Your task to perform on an android device: allow cookies in the chrome app Image 0: 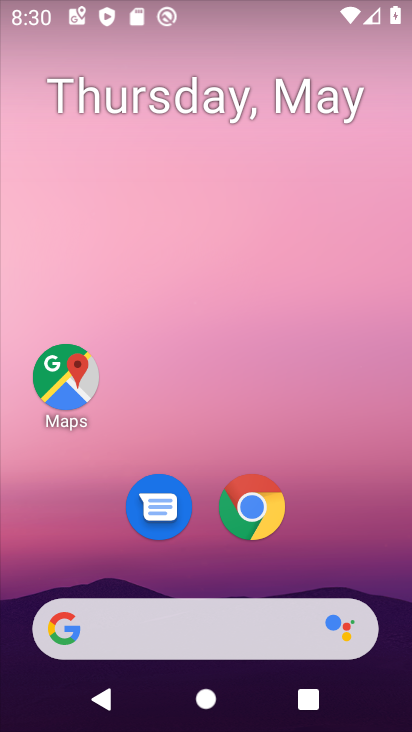
Step 0: drag from (273, 661) to (165, 172)
Your task to perform on an android device: allow cookies in the chrome app Image 1: 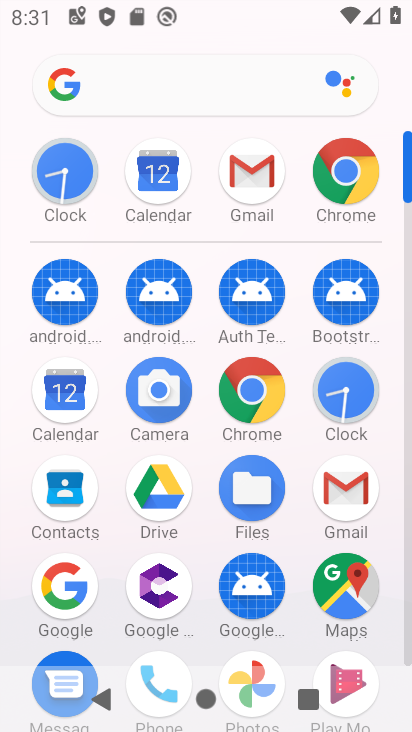
Step 1: click (335, 174)
Your task to perform on an android device: allow cookies in the chrome app Image 2: 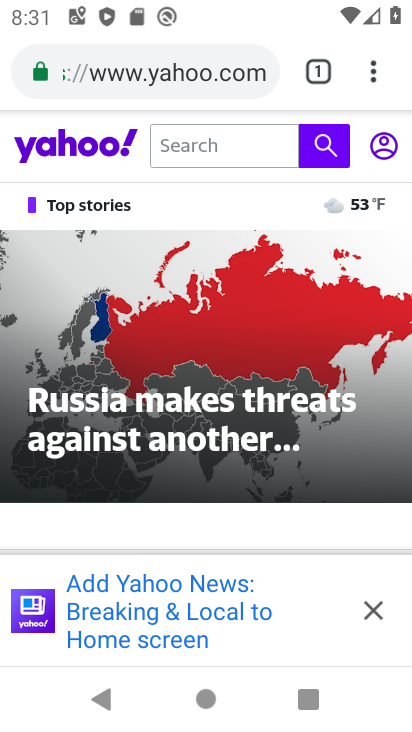
Step 2: click (366, 80)
Your task to perform on an android device: allow cookies in the chrome app Image 3: 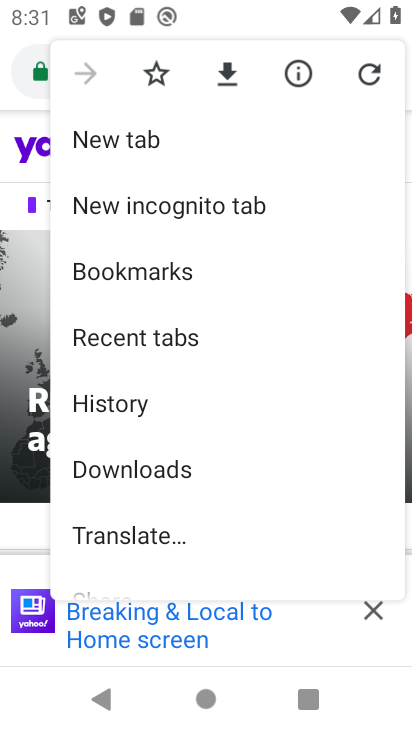
Step 3: drag from (144, 440) to (243, 219)
Your task to perform on an android device: allow cookies in the chrome app Image 4: 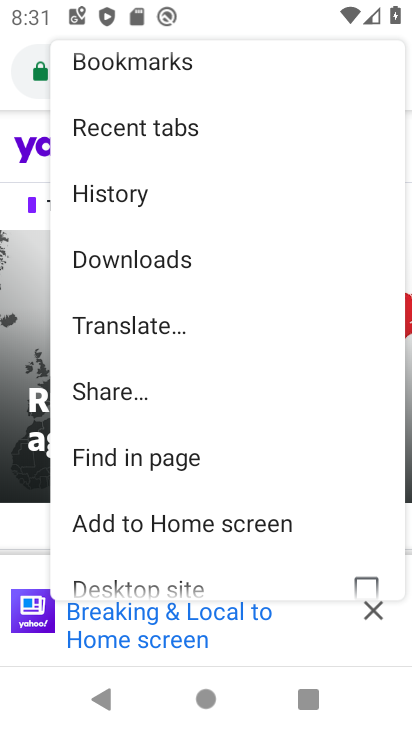
Step 4: drag from (145, 470) to (203, 179)
Your task to perform on an android device: allow cookies in the chrome app Image 5: 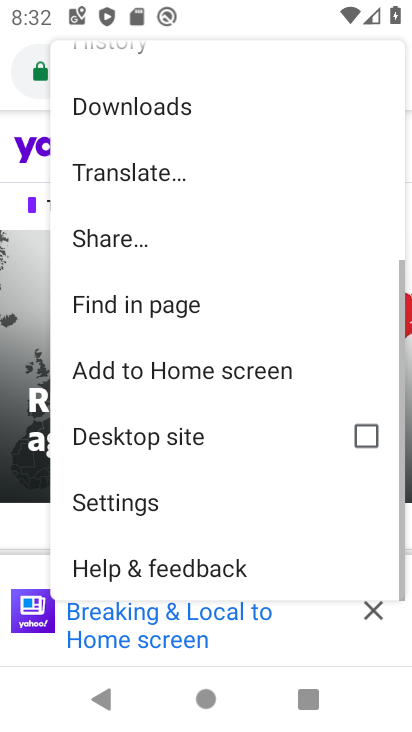
Step 5: click (119, 483)
Your task to perform on an android device: allow cookies in the chrome app Image 6: 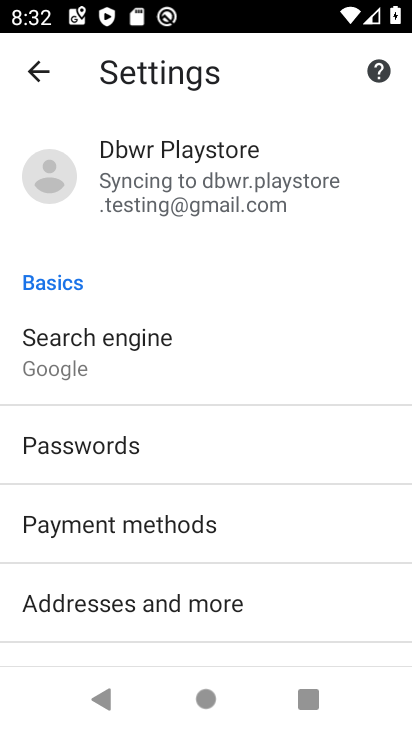
Step 6: drag from (168, 576) to (225, 226)
Your task to perform on an android device: allow cookies in the chrome app Image 7: 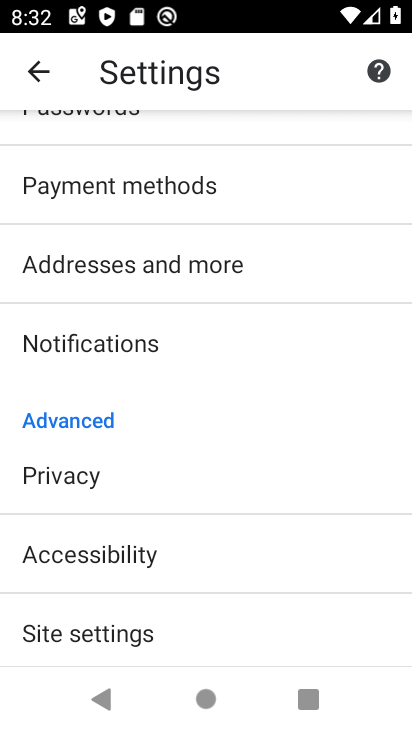
Step 7: drag from (128, 615) to (172, 514)
Your task to perform on an android device: allow cookies in the chrome app Image 8: 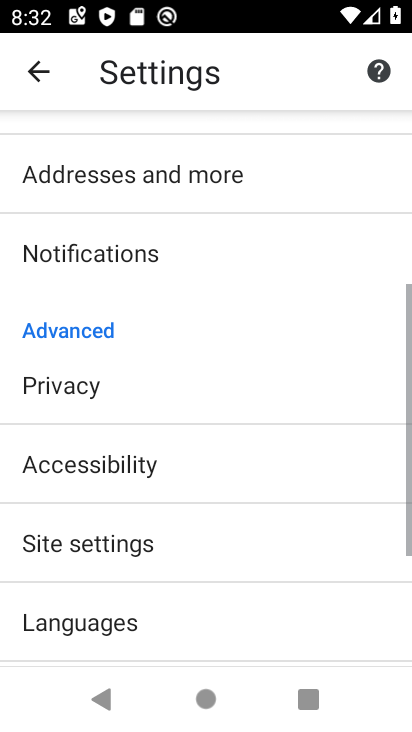
Step 8: click (138, 549)
Your task to perform on an android device: allow cookies in the chrome app Image 9: 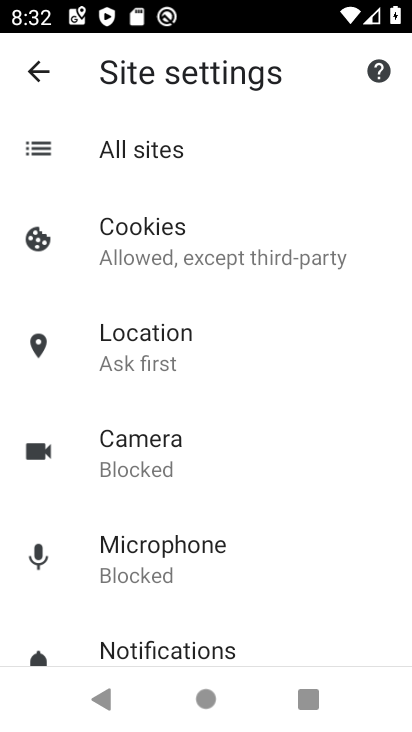
Step 9: click (195, 246)
Your task to perform on an android device: allow cookies in the chrome app Image 10: 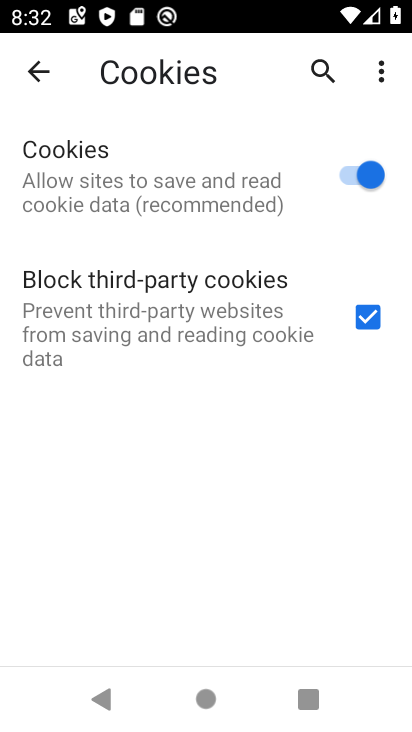
Step 10: click (290, 177)
Your task to perform on an android device: allow cookies in the chrome app Image 11: 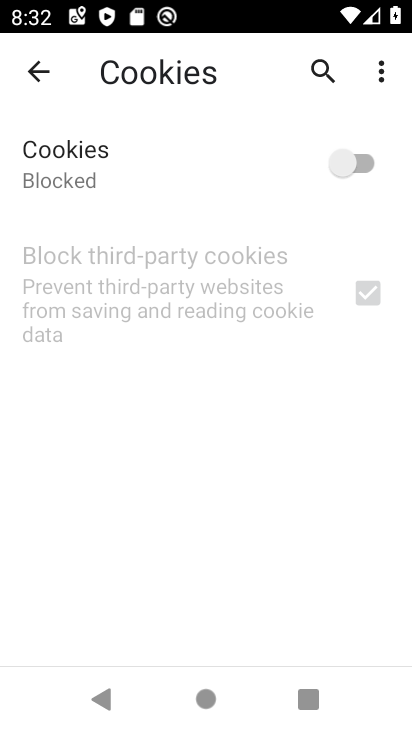
Step 11: click (287, 181)
Your task to perform on an android device: allow cookies in the chrome app Image 12: 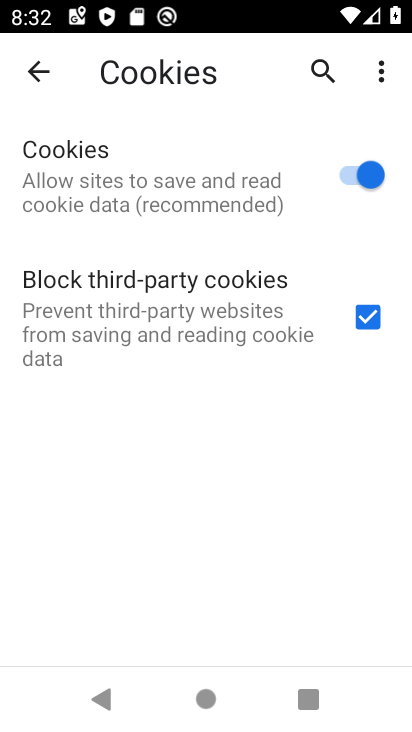
Step 12: task complete